Your task to perform on an android device: turn on location history Image 0: 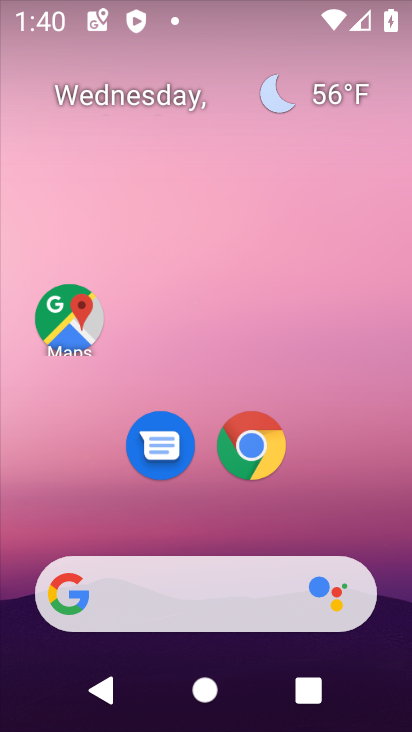
Step 0: drag from (247, 534) to (181, 2)
Your task to perform on an android device: turn on location history Image 1: 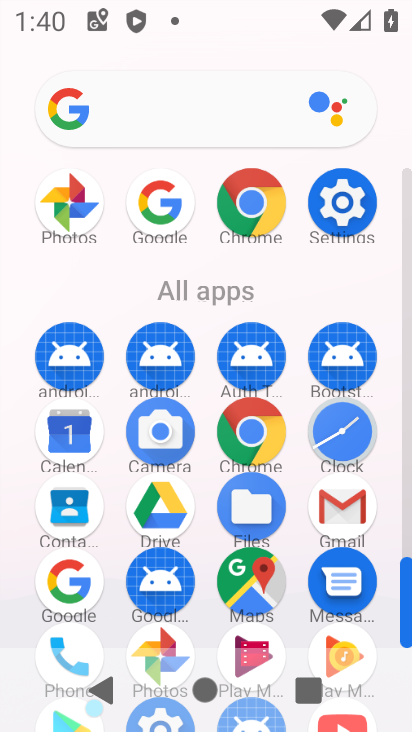
Step 1: click (340, 204)
Your task to perform on an android device: turn on location history Image 2: 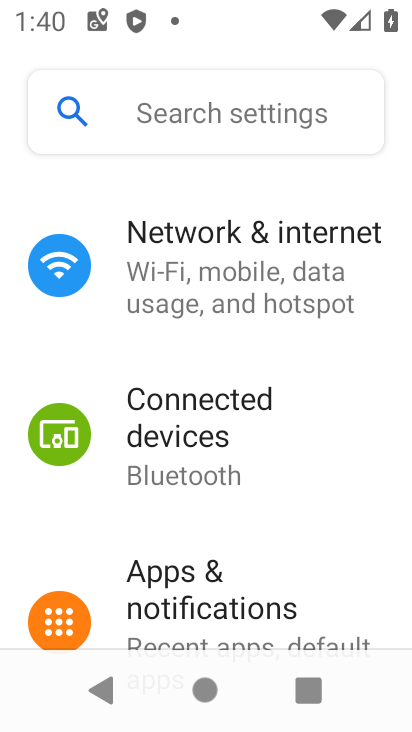
Step 2: drag from (321, 541) to (273, 88)
Your task to perform on an android device: turn on location history Image 3: 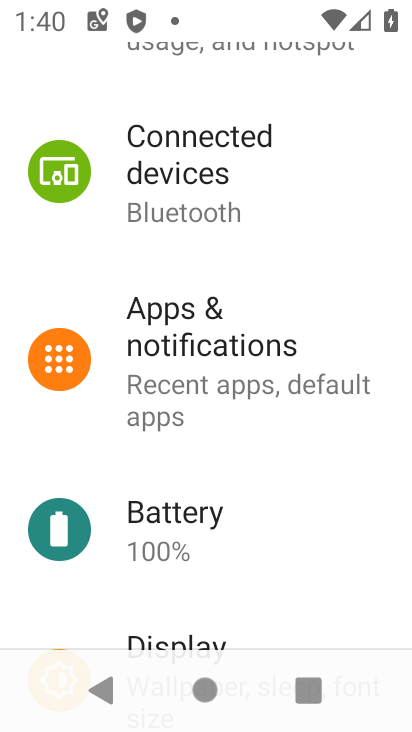
Step 3: drag from (245, 542) to (237, 125)
Your task to perform on an android device: turn on location history Image 4: 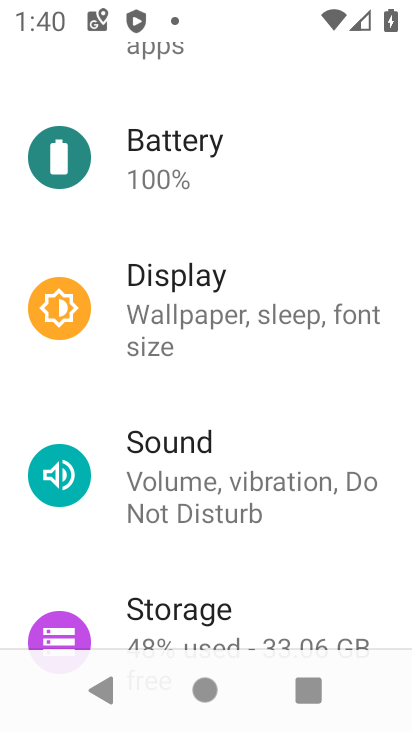
Step 4: drag from (261, 511) to (250, 139)
Your task to perform on an android device: turn on location history Image 5: 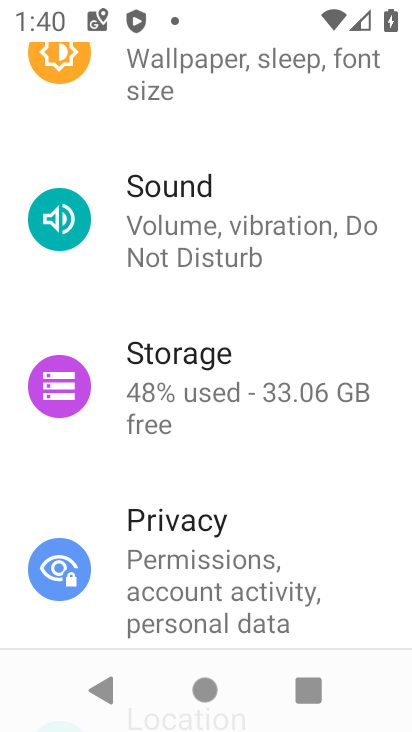
Step 5: drag from (201, 562) to (204, 36)
Your task to perform on an android device: turn on location history Image 6: 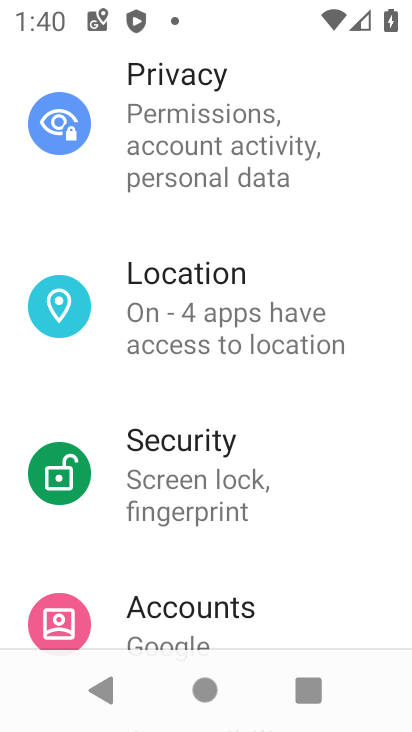
Step 6: click (195, 302)
Your task to perform on an android device: turn on location history Image 7: 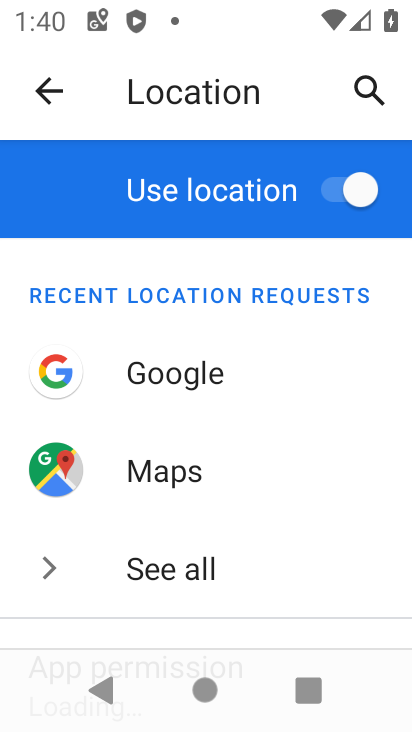
Step 7: drag from (248, 467) to (196, 138)
Your task to perform on an android device: turn on location history Image 8: 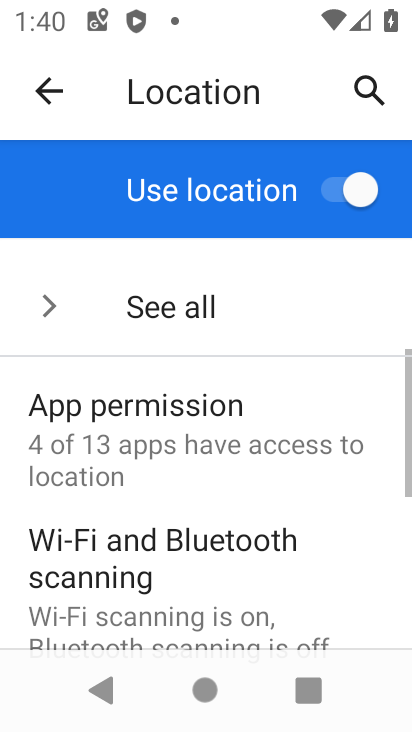
Step 8: drag from (207, 573) to (159, 109)
Your task to perform on an android device: turn on location history Image 9: 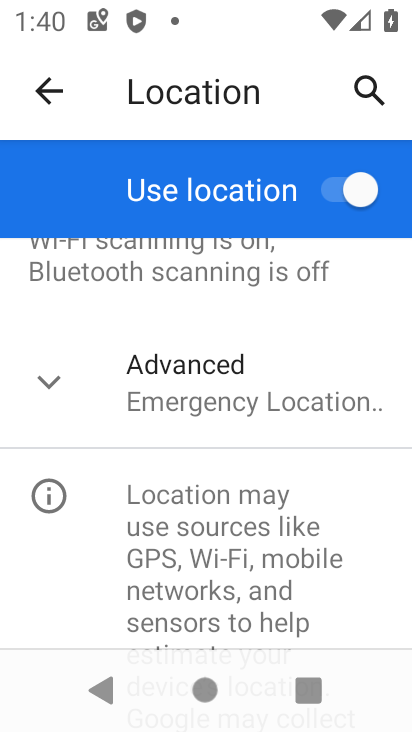
Step 9: click (173, 394)
Your task to perform on an android device: turn on location history Image 10: 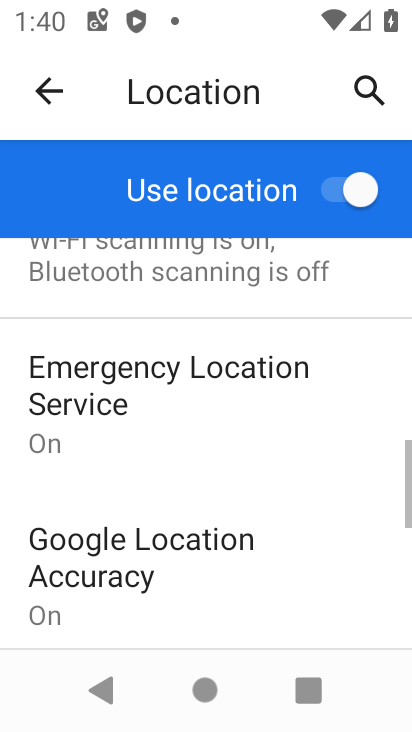
Step 10: drag from (180, 500) to (181, 302)
Your task to perform on an android device: turn on location history Image 11: 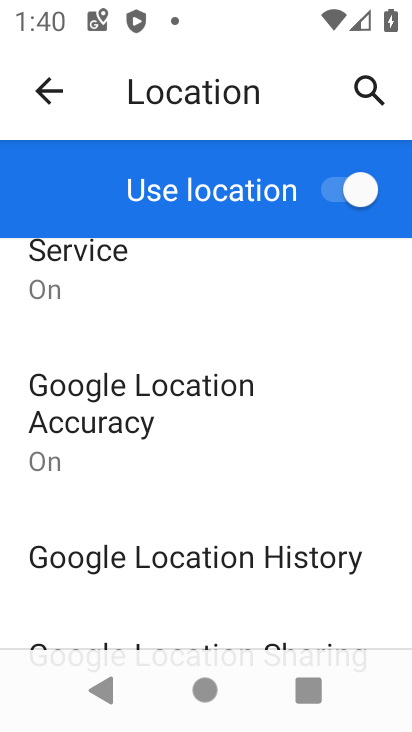
Step 11: click (232, 544)
Your task to perform on an android device: turn on location history Image 12: 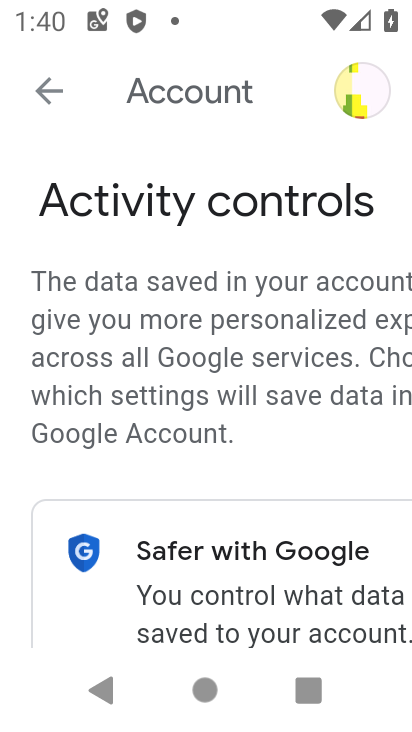
Step 12: task complete